Your task to perform on an android device: turn on the 12-hour format for clock Image 0: 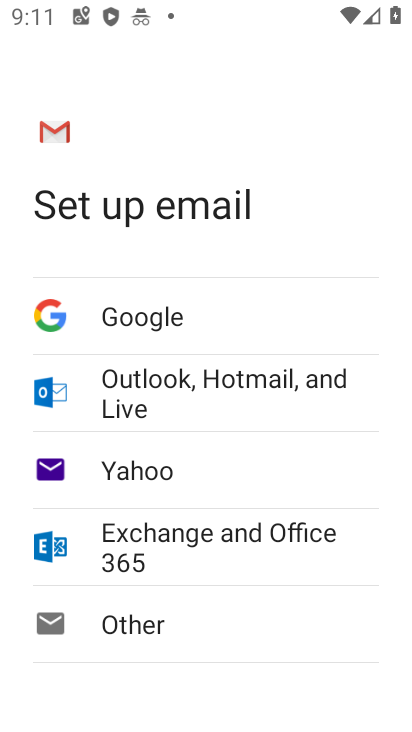
Step 0: press home button
Your task to perform on an android device: turn on the 12-hour format for clock Image 1: 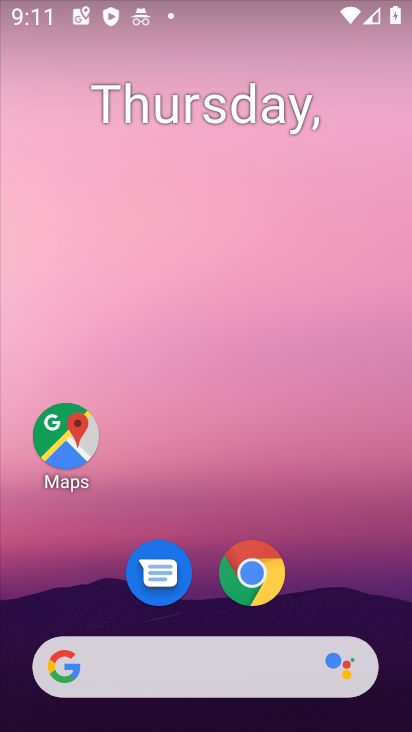
Step 1: drag from (379, 602) to (330, 167)
Your task to perform on an android device: turn on the 12-hour format for clock Image 2: 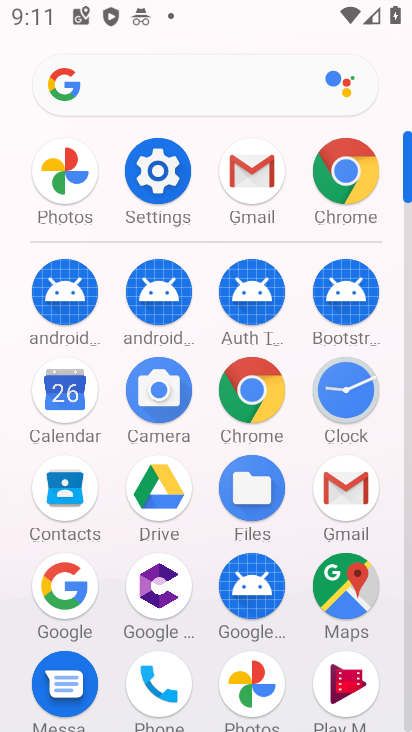
Step 2: click (358, 399)
Your task to perform on an android device: turn on the 12-hour format for clock Image 3: 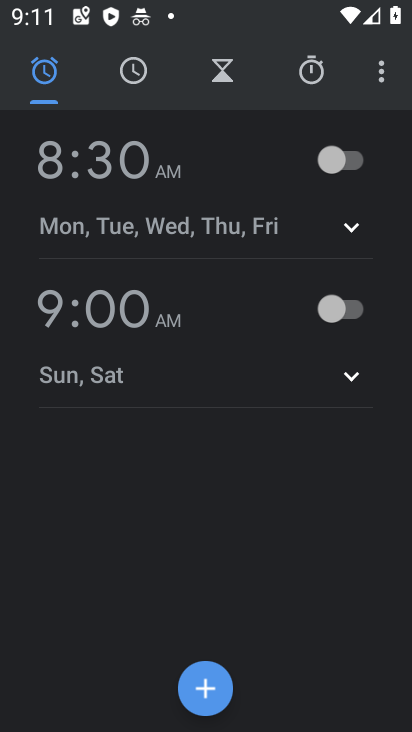
Step 3: click (371, 55)
Your task to perform on an android device: turn on the 12-hour format for clock Image 4: 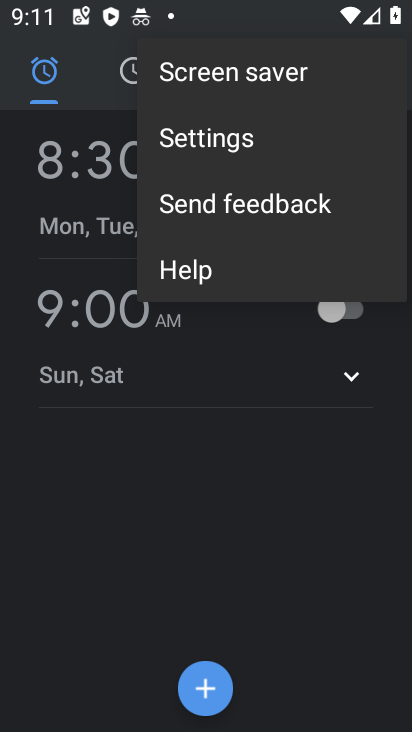
Step 4: click (235, 140)
Your task to perform on an android device: turn on the 12-hour format for clock Image 5: 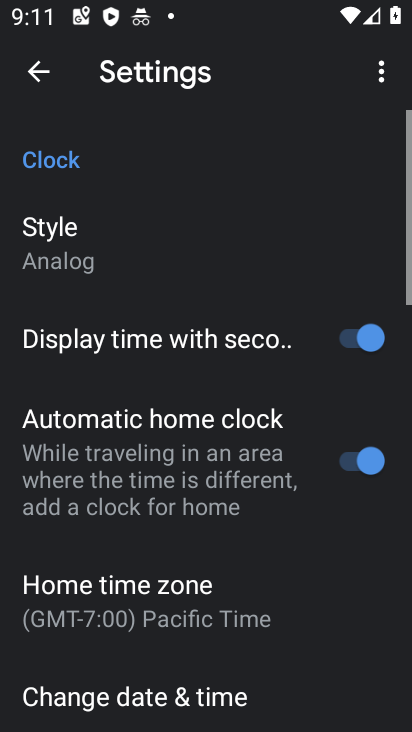
Step 5: drag from (236, 618) to (254, 281)
Your task to perform on an android device: turn on the 12-hour format for clock Image 6: 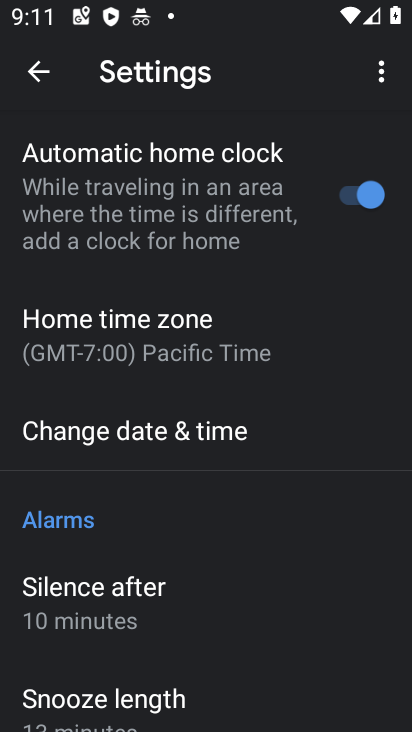
Step 6: drag from (251, 604) to (255, 311)
Your task to perform on an android device: turn on the 12-hour format for clock Image 7: 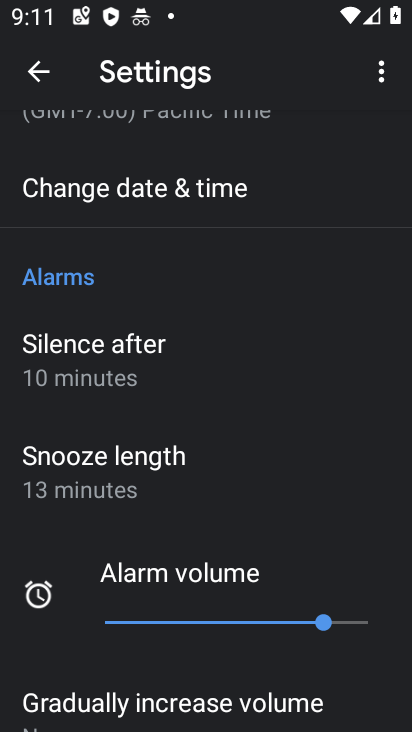
Step 7: click (214, 189)
Your task to perform on an android device: turn on the 12-hour format for clock Image 8: 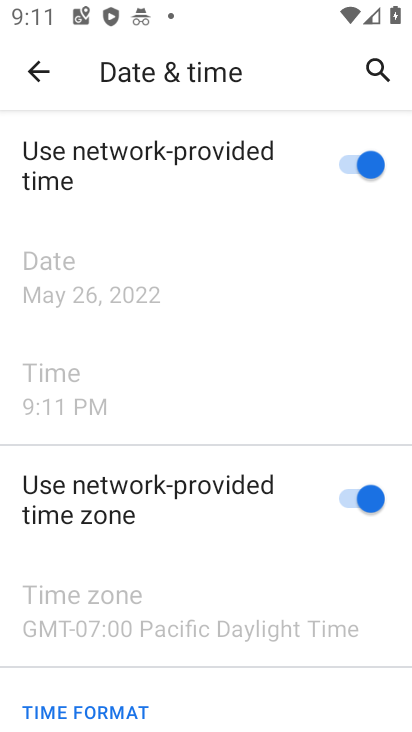
Step 8: task complete